Your task to perform on an android device: toggle improve location accuracy Image 0: 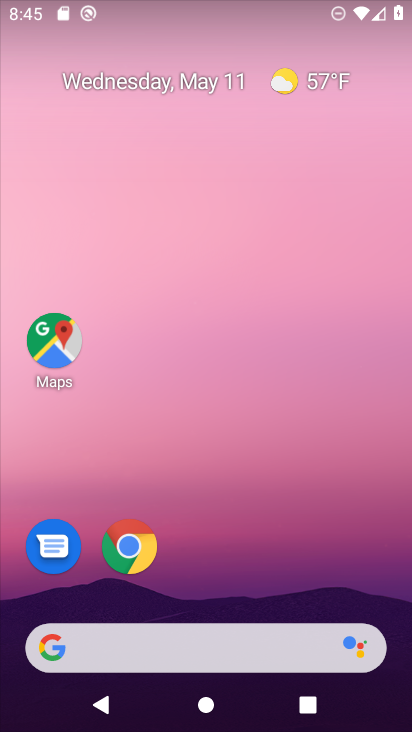
Step 0: drag from (232, 581) to (232, 130)
Your task to perform on an android device: toggle improve location accuracy Image 1: 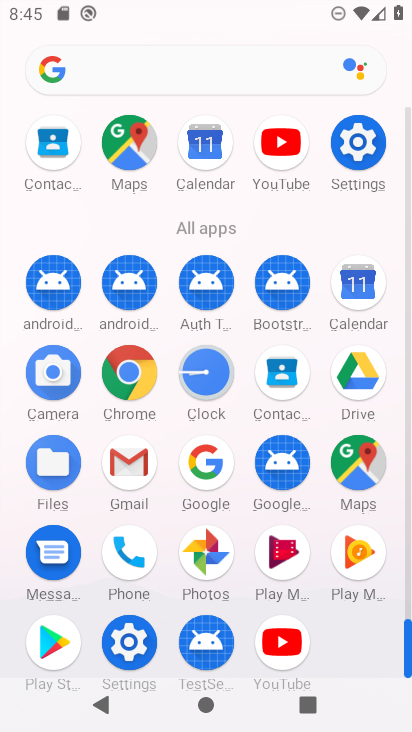
Step 1: click (358, 128)
Your task to perform on an android device: toggle improve location accuracy Image 2: 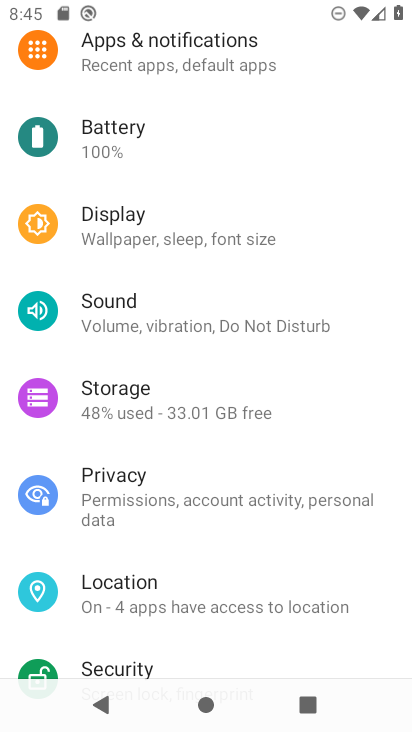
Step 2: click (160, 581)
Your task to perform on an android device: toggle improve location accuracy Image 3: 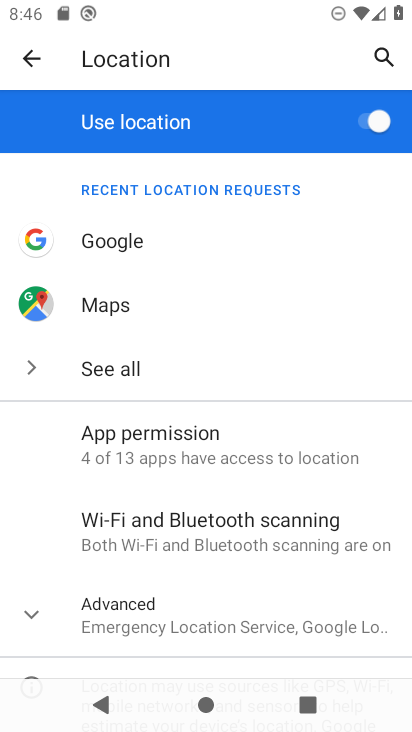
Step 3: drag from (208, 596) to (206, 425)
Your task to perform on an android device: toggle improve location accuracy Image 4: 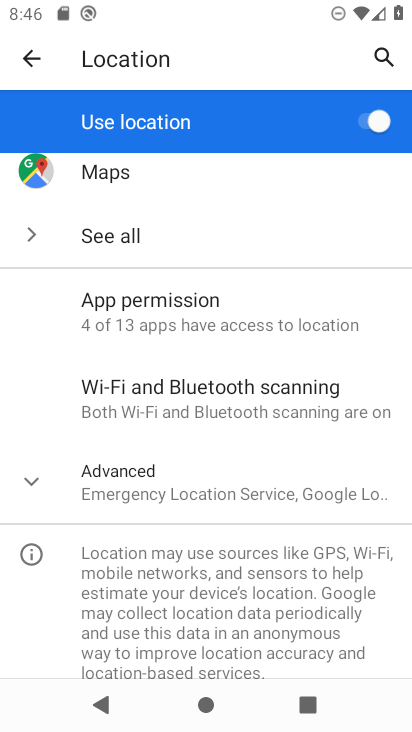
Step 4: click (178, 482)
Your task to perform on an android device: toggle improve location accuracy Image 5: 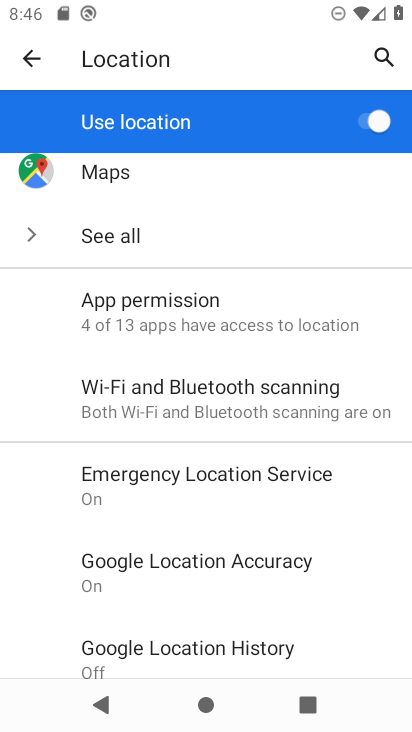
Step 5: drag from (219, 648) to (197, 434)
Your task to perform on an android device: toggle improve location accuracy Image 6: 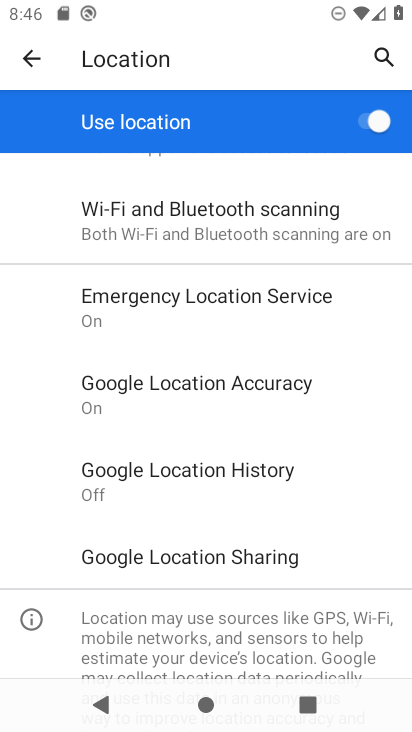
Step 6: click (196, 398)
Your task to perform on an android device: toggle improve location accuracy Image 7: 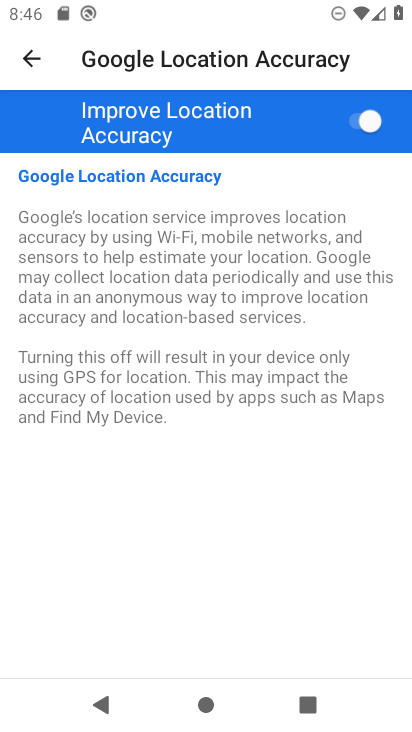
Step 7: click (361, 124)
Your task to perform on an android device: toggle improve location accuracy Image 8: 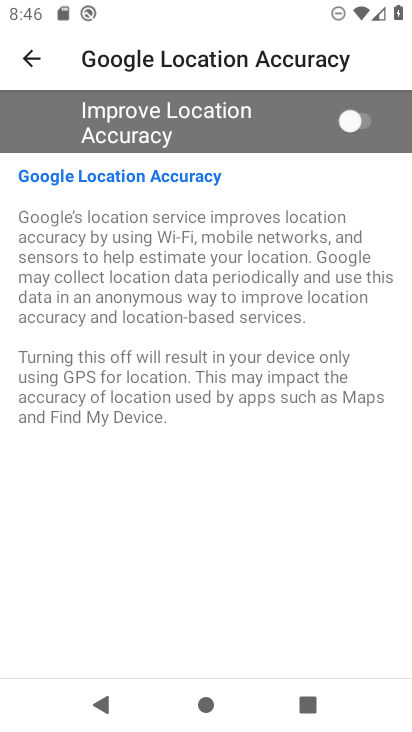
Step 8: task complete